Your task to perform on an android device: allow notifications from all sites in the chrome app Image 0: 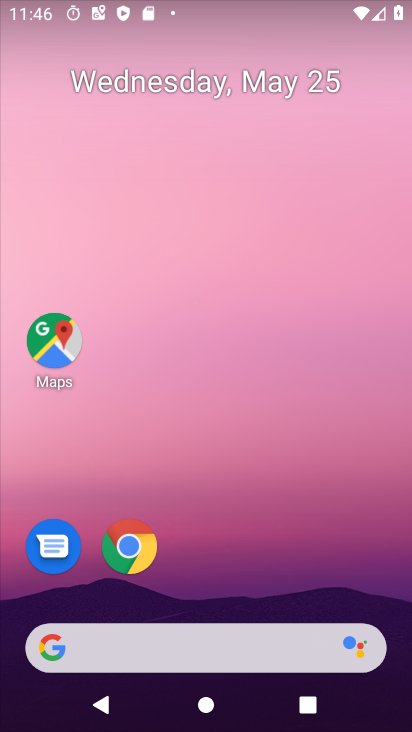
Step 0: click (136, 542)
Your task to perform on an android device: allow notifications from all sites in the chrome app Image 1: 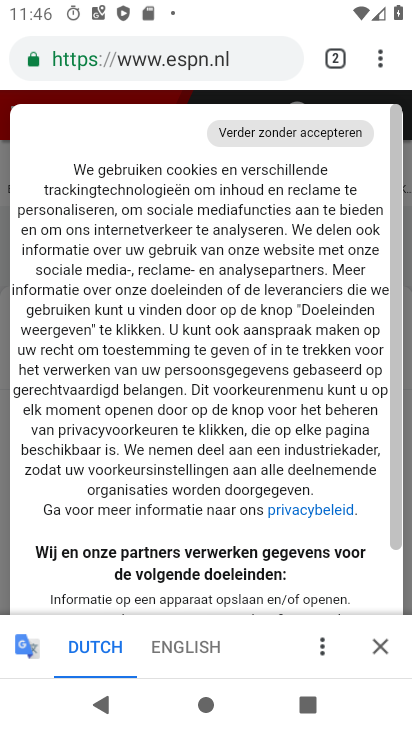
Step 1: click (381, 59)
Your task to perform on an android device: allow notifications from all sites in the chrome app Image 2: 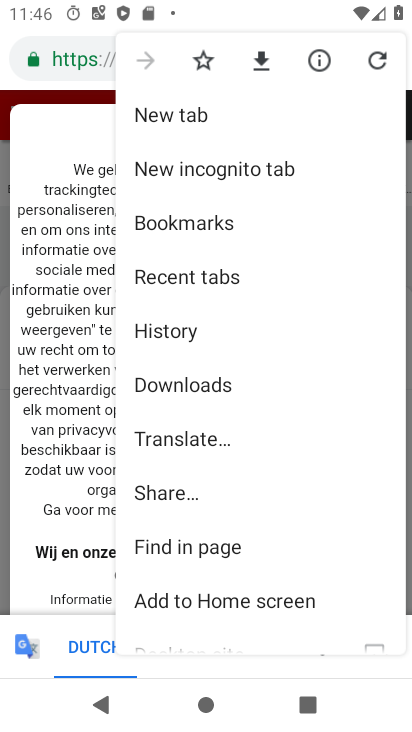
Step 2: drag from (230, 576) to (257, 148)
Your task to perform on an android device: allow notifications from all sites in the chrome app Image 3: 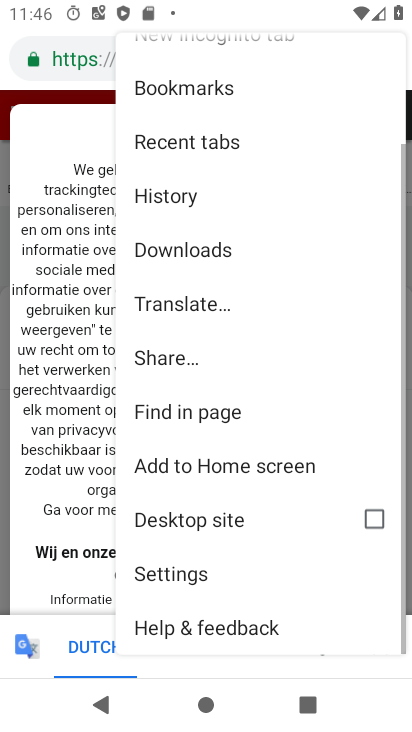
Step 3: click (207, 572)
Your task to perform on an android device: allow notifications from all sites in the chrome app Image 4: 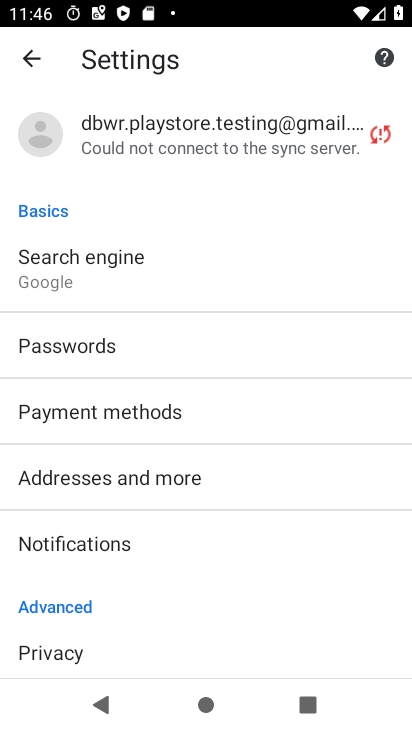
Step 4: drag from (128, 636) to (185, 156)
Your task to perform on an android device: allow notifications from all sites in the chrome app Image 5: 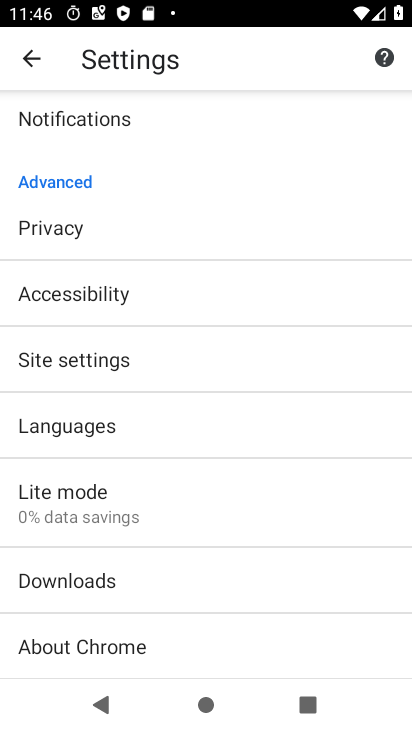
Step 5: click (96, 130)
Your task to perform on an android device: allow notifications from all sites in the chrome app Image 6: 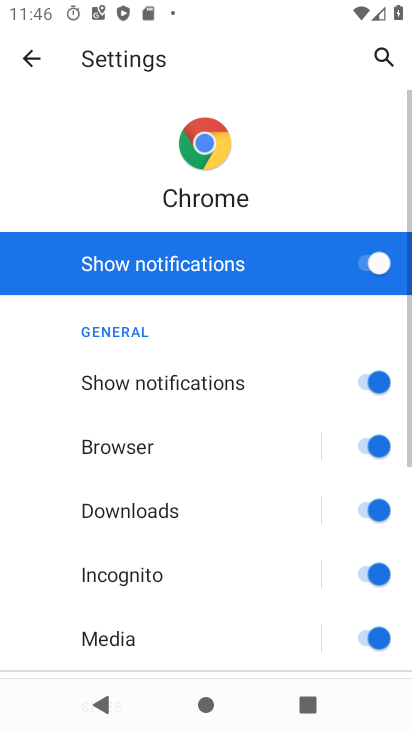
Step 6: task complete